Your task to perform on an android device: turn off translation in the chrome app Image 0: 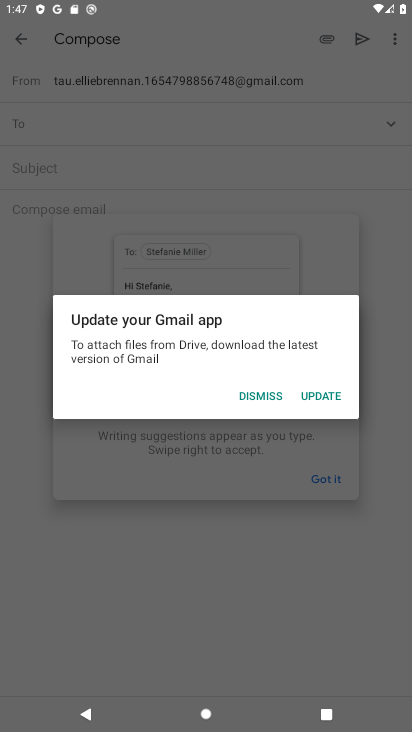
Step 0: press home button
Your task to perform on an android device: turn off translation in the chrome app Image 1: 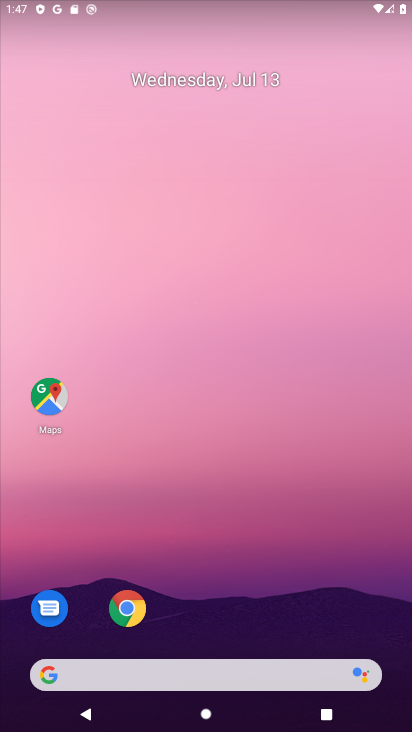
Step 1: click (145, 614)
Your task to perform on an android device: turn off translation in the chrome app Image 2: 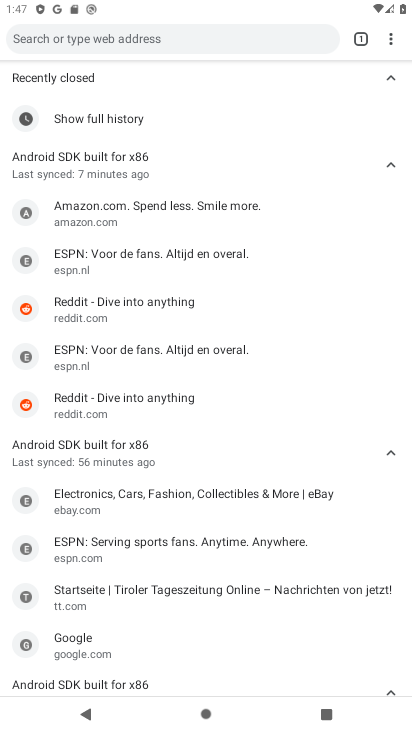
Step 2: click (397, 38)
Your task to perform on an android device: turn off translation in the chrome app Image 3: 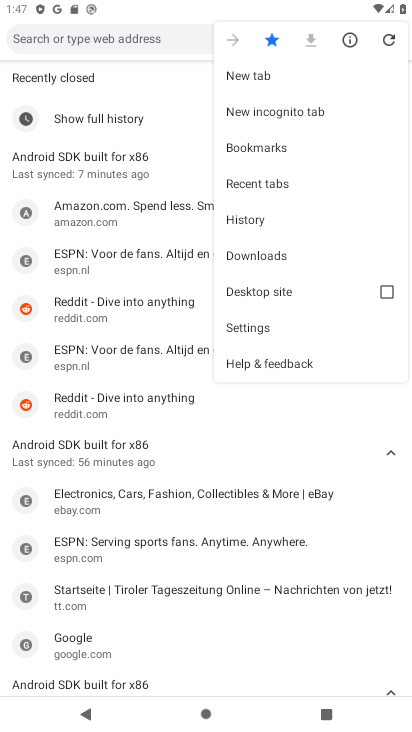
Step 3: click (283, 335)
Your task to perform on an android device: turn off translation in the chrome app Image 4: 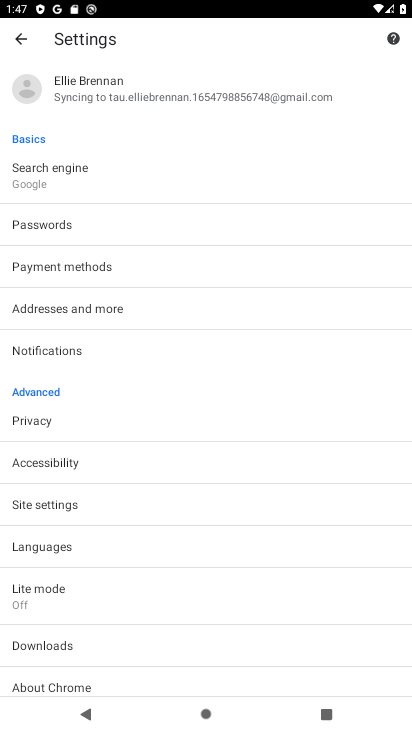
Step 4: click (74, 554)
Your task to perform on an android device: turn off translation in the chrome app Image 5: 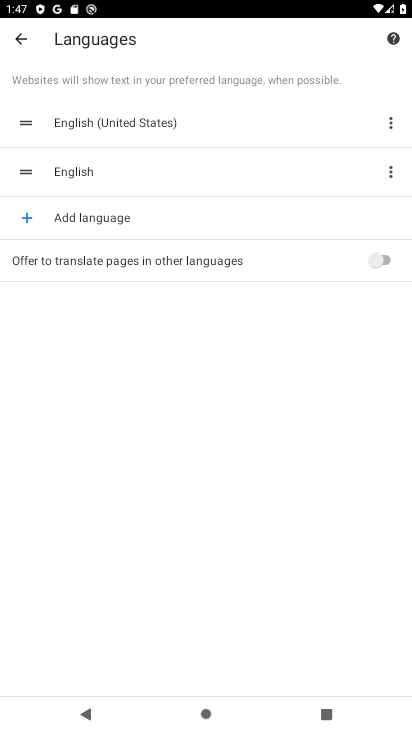
Step 5: task complete